Your task to perform on an android device: uninstall "LiveIn - Share Your Moment" Image 0: 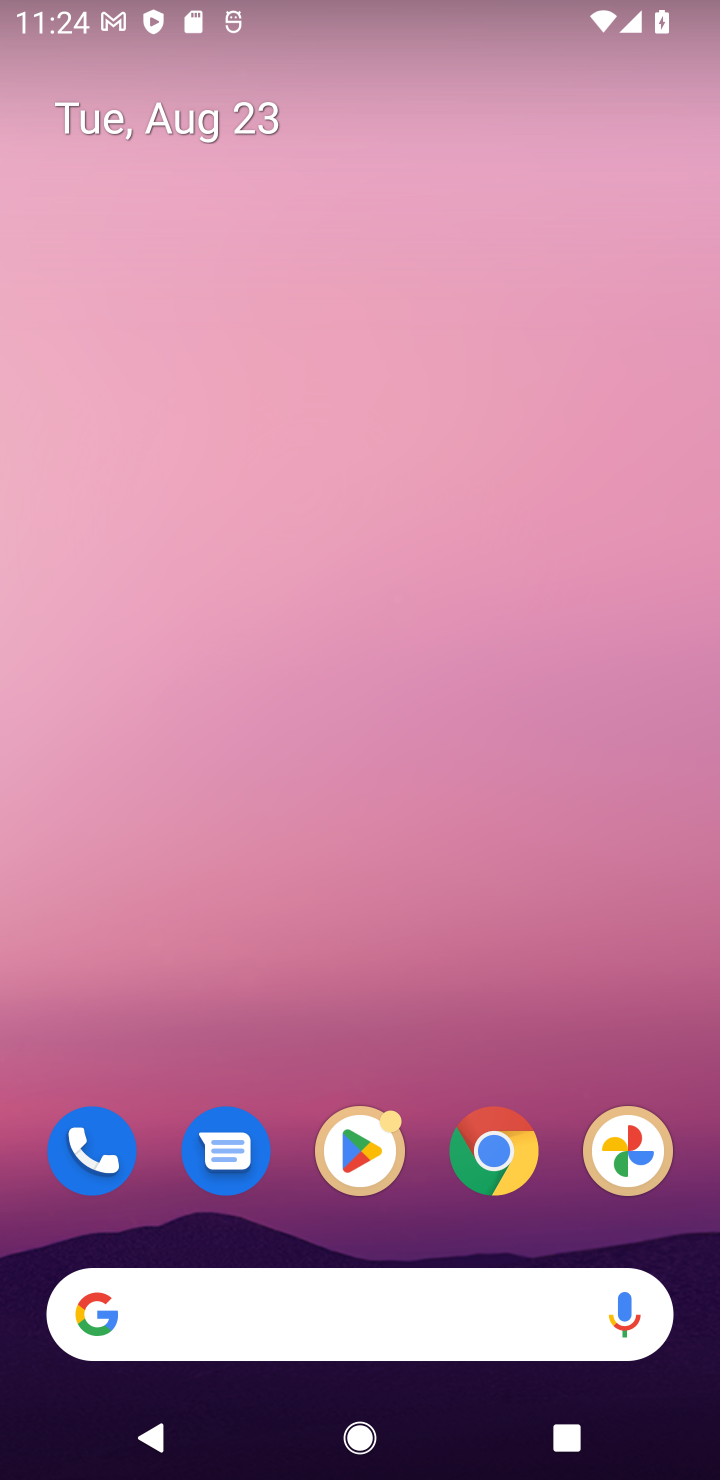
Step 0: drag from (237, 1349) to (335, 56)
Your task to perform on an android device: uninstall "LiveIn - Share Your Moment" Image 1: 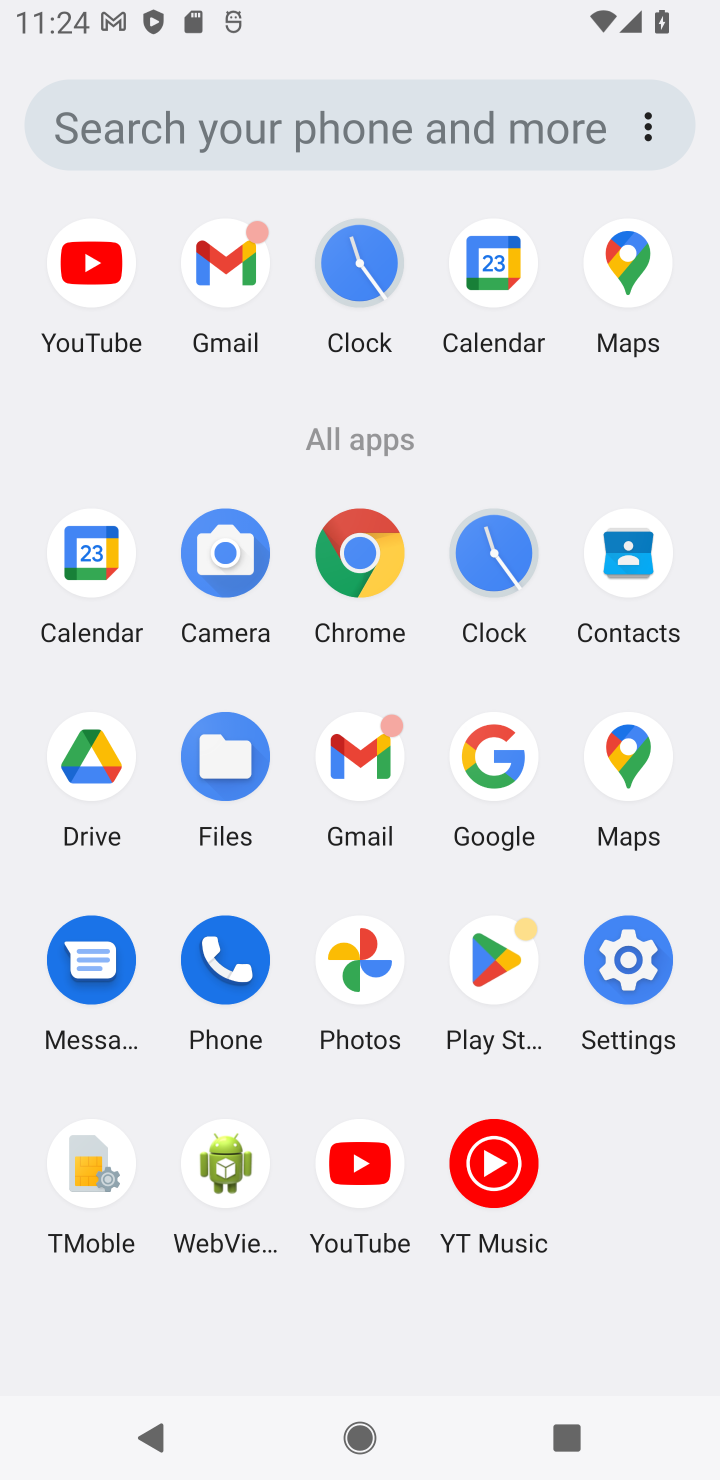
Step 1: click (497, 969)
Your task to perform on an android device: uninstall "LiveIn - Share Your Moment" Image 2: 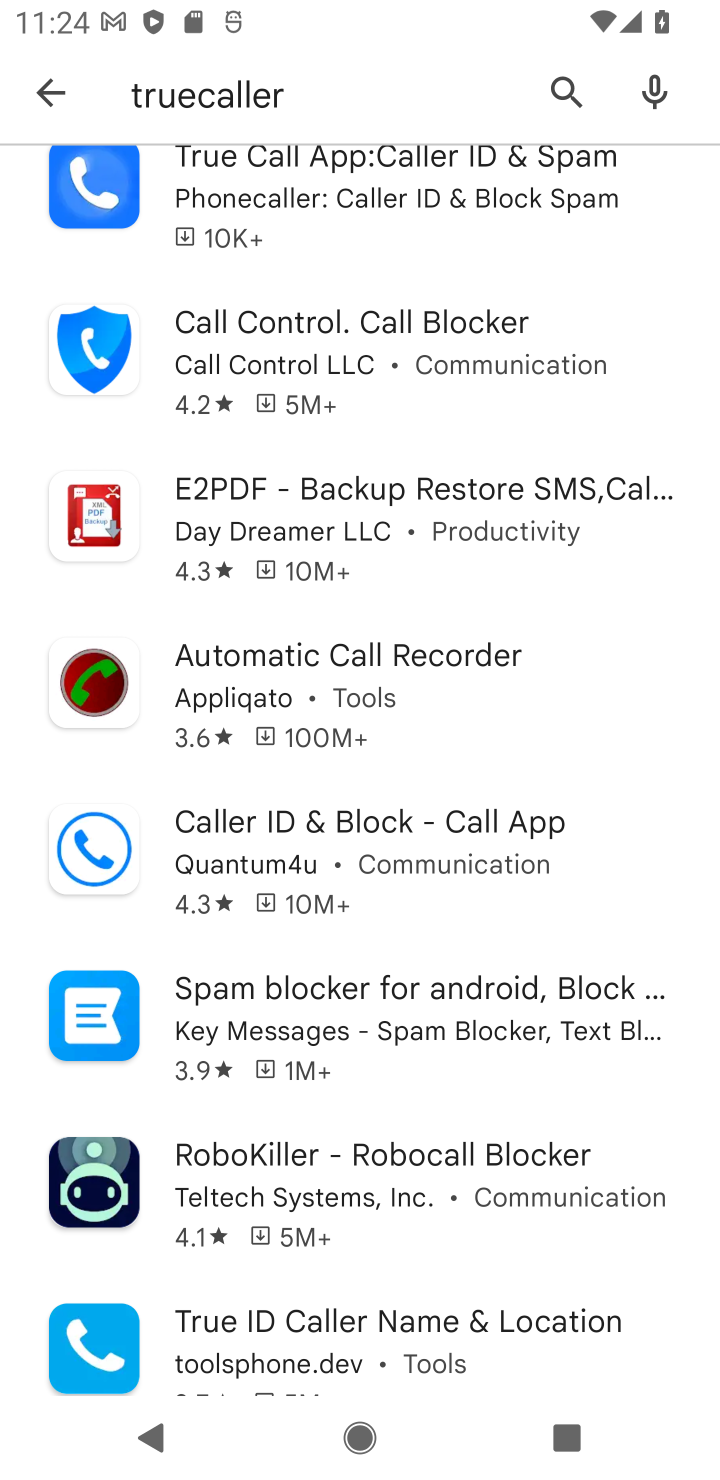
Step 2: press back button
Your task to perform on an android device: uninstall "LiveIn - Share Your Moment" Image 3: 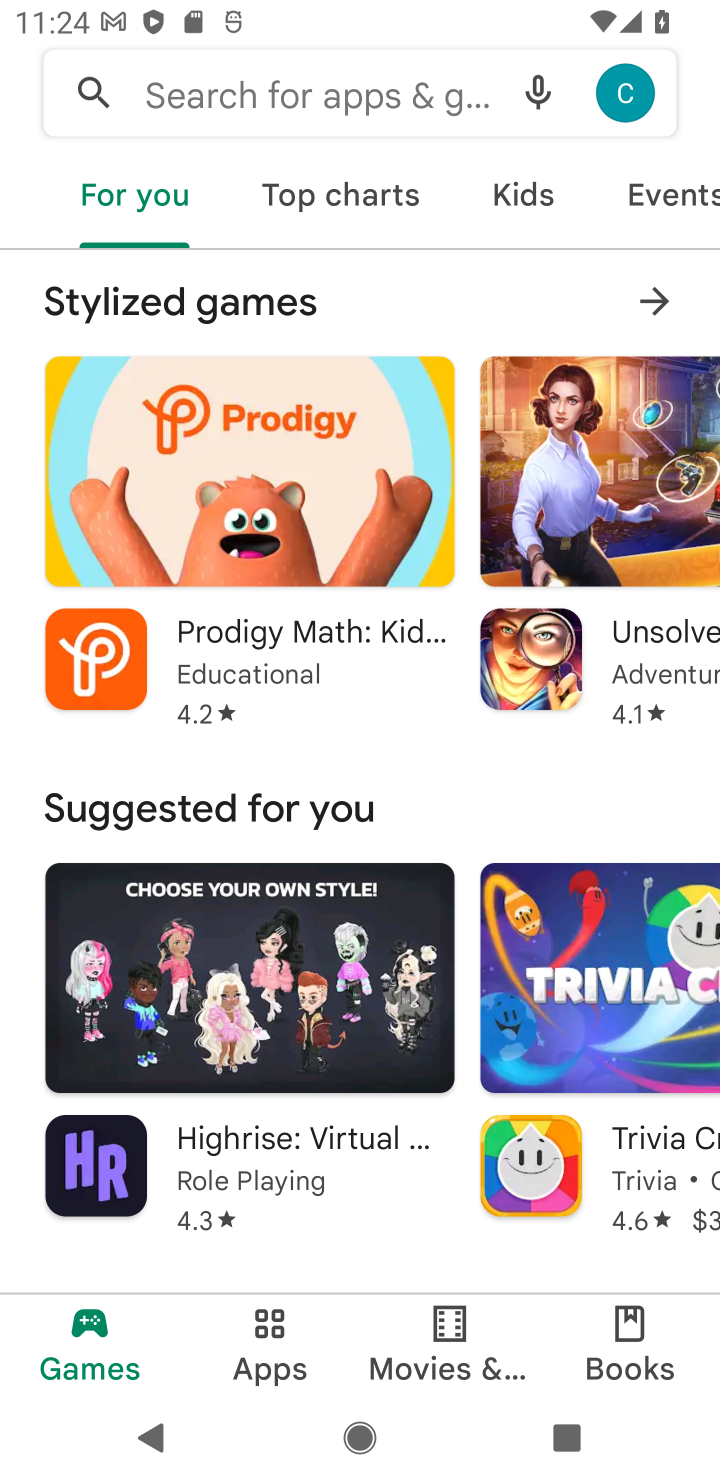
Step 3: click (307, 84)
Your task to perform on an android device: uninstall "LiveIn - Share Your Moment" Image 4: 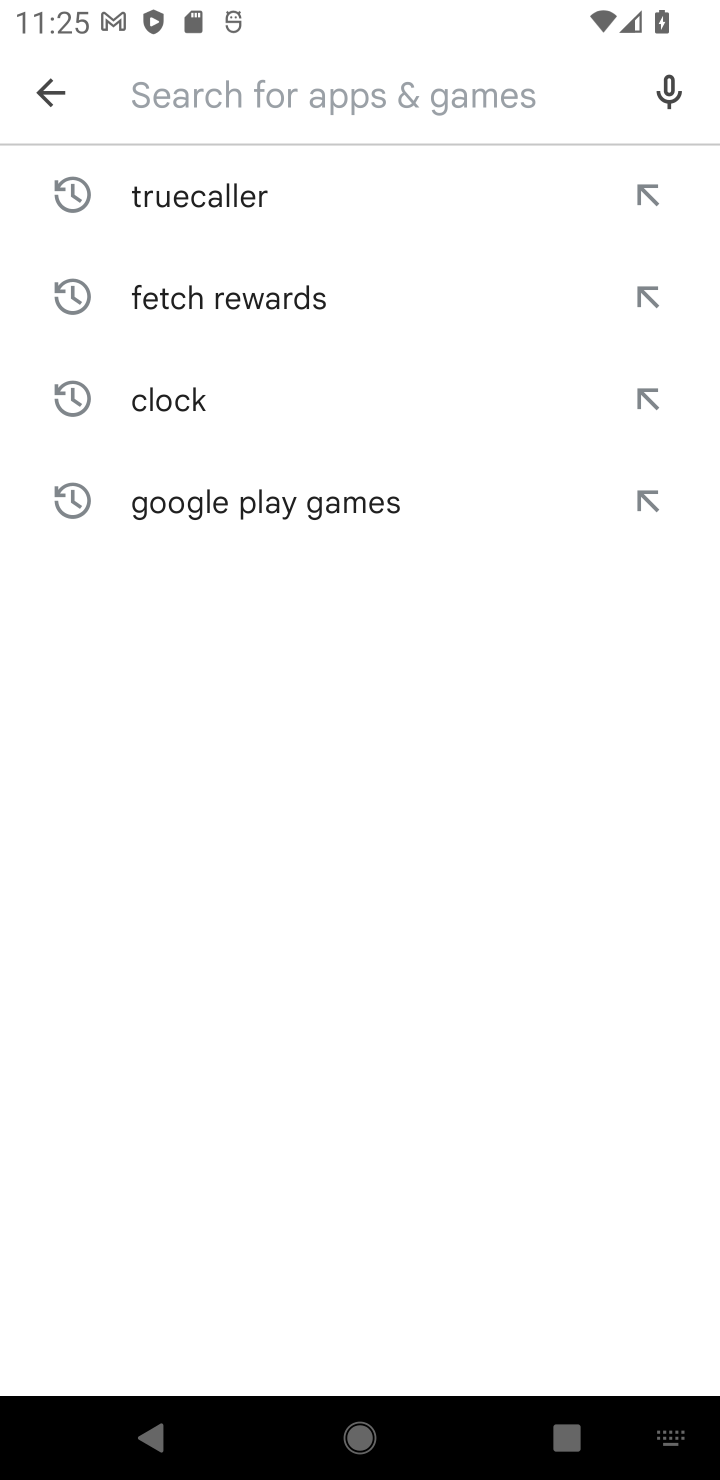
Step 4: type "LiveIn - Share Your Moment"
Your task to perform on an android device: uninstall "LiveIn - Share Your Moment" Image 5: 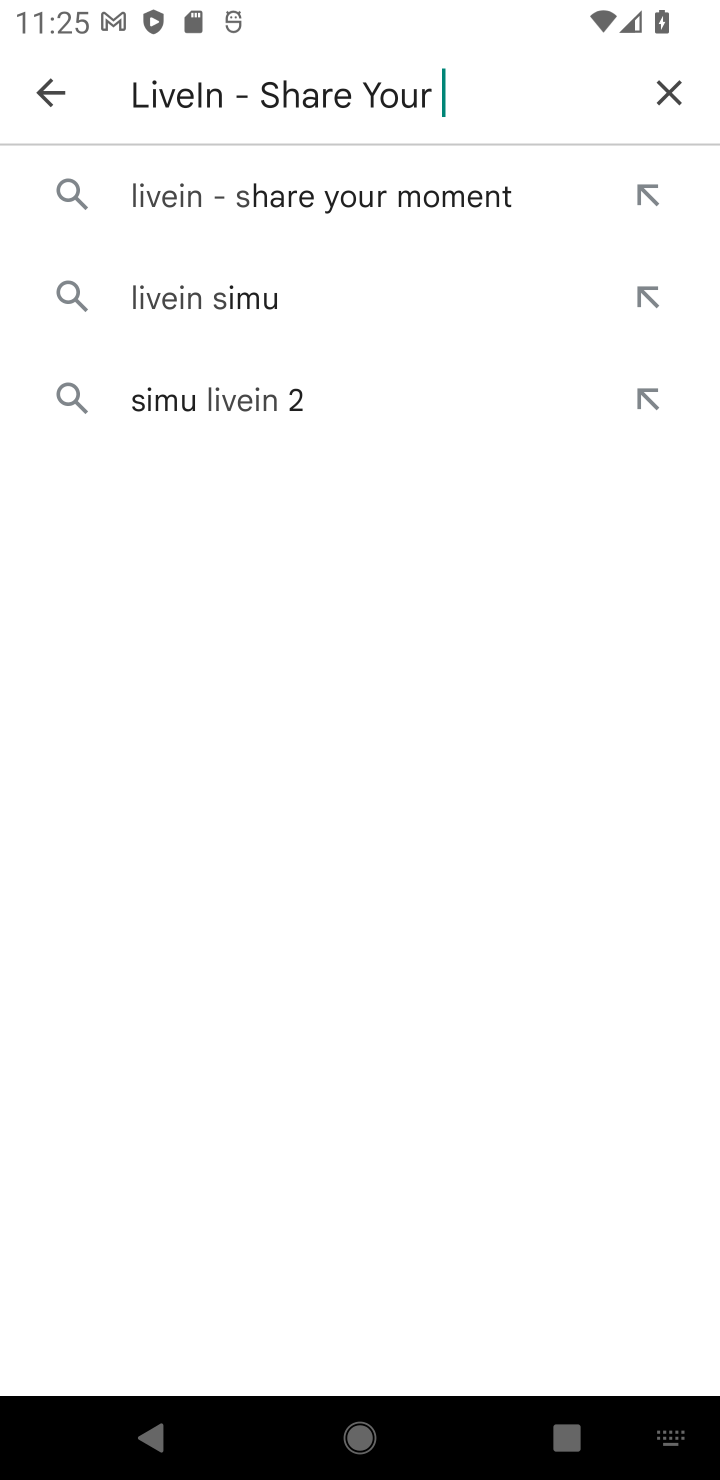
Step 5: type ""
Your task to perform on an android device: uninstall "LiveIn - Share Your Moment" Image 6: 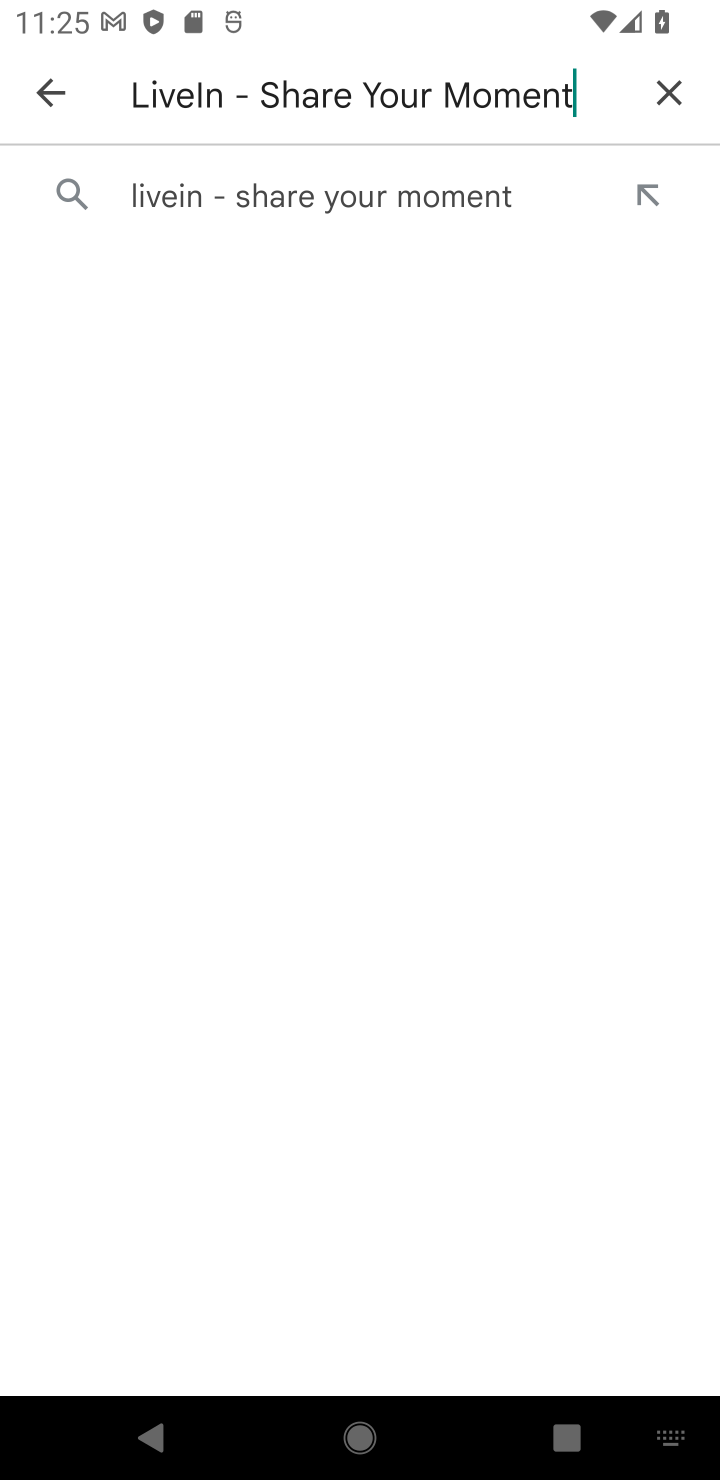
Step 6: click (493, 220)
Your task to perform on an android device: uninstall "LiveIn - Share Your Moment" Image 7: 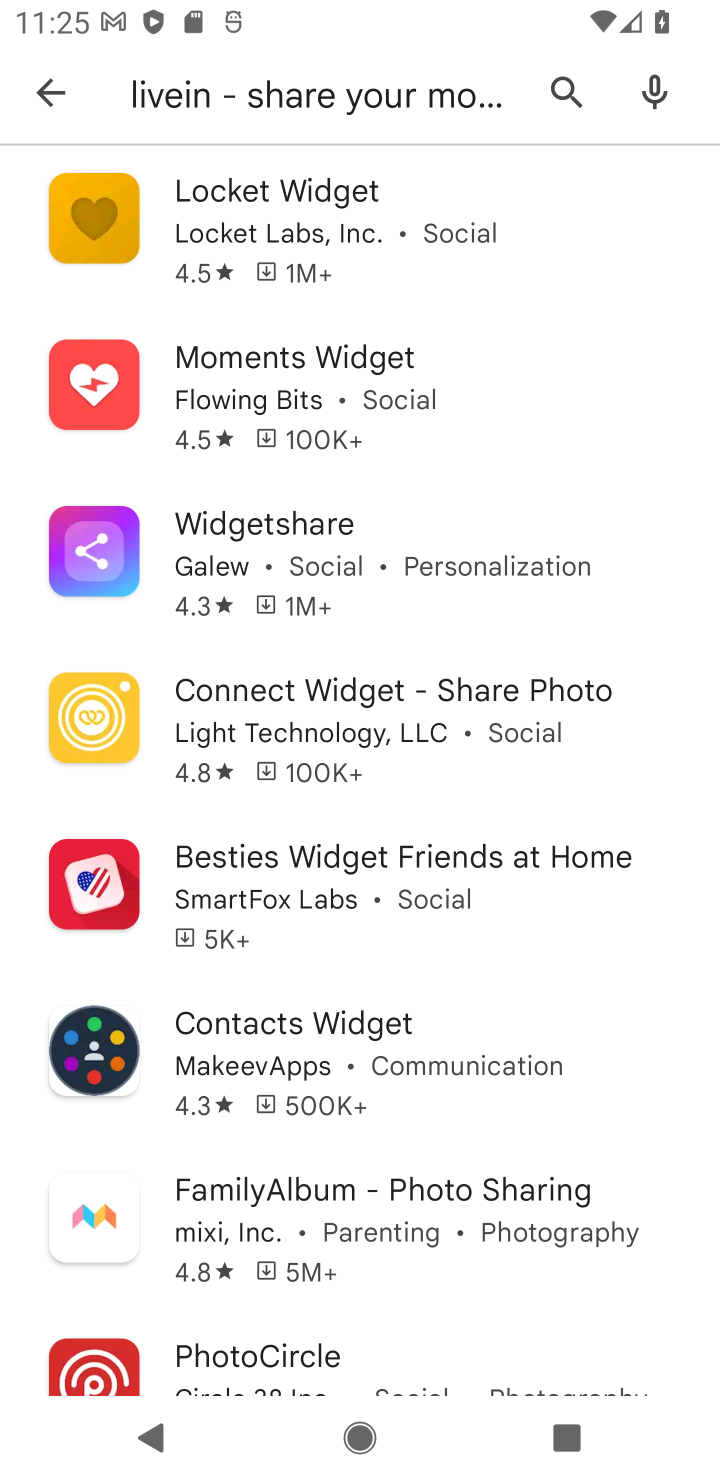
Step 7: drag from (296, 984) to (432, 749)
Your task to perform on an android device: uninstall "LiveIn - Share Your Moment" Image 8: 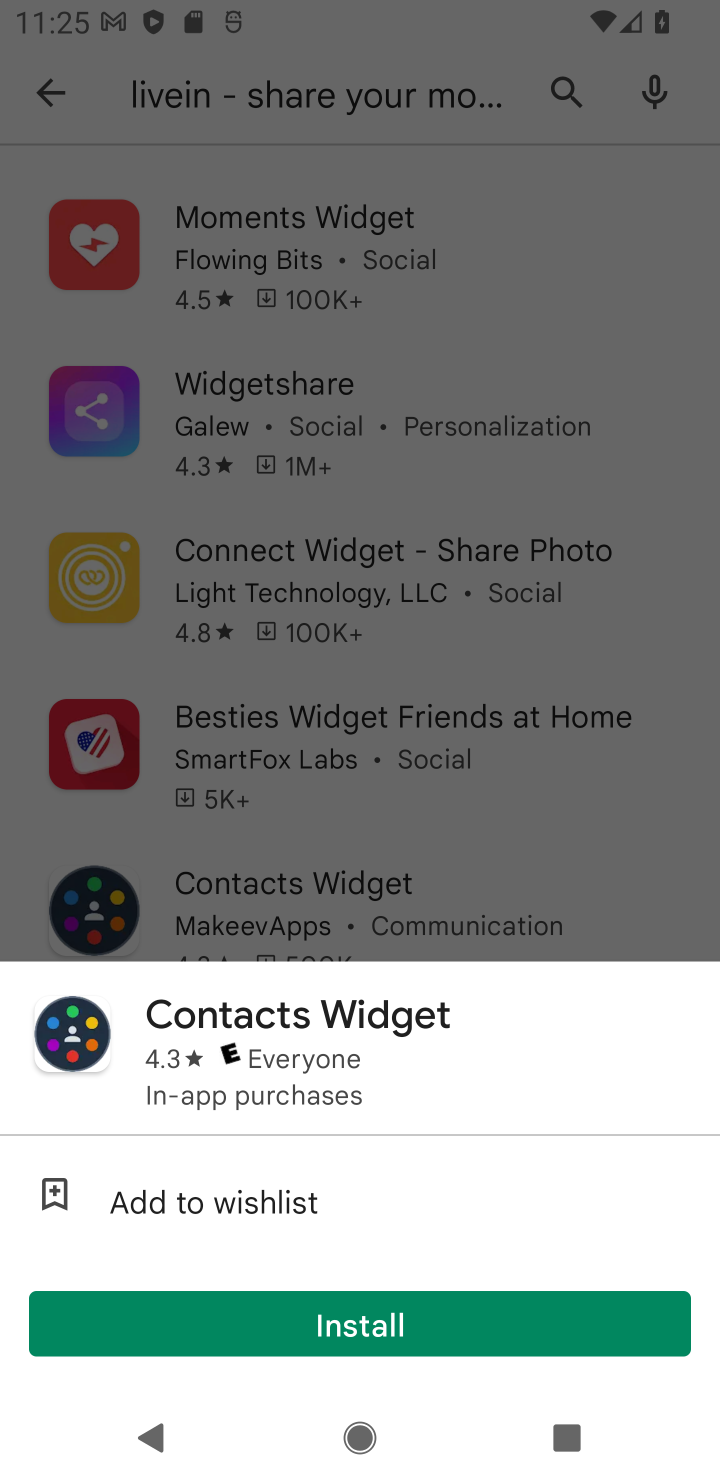
Step 8: click (570, 480)
Your task to perform on an android device: uninstall "LiveIn - Share Your Moment" Image 9: 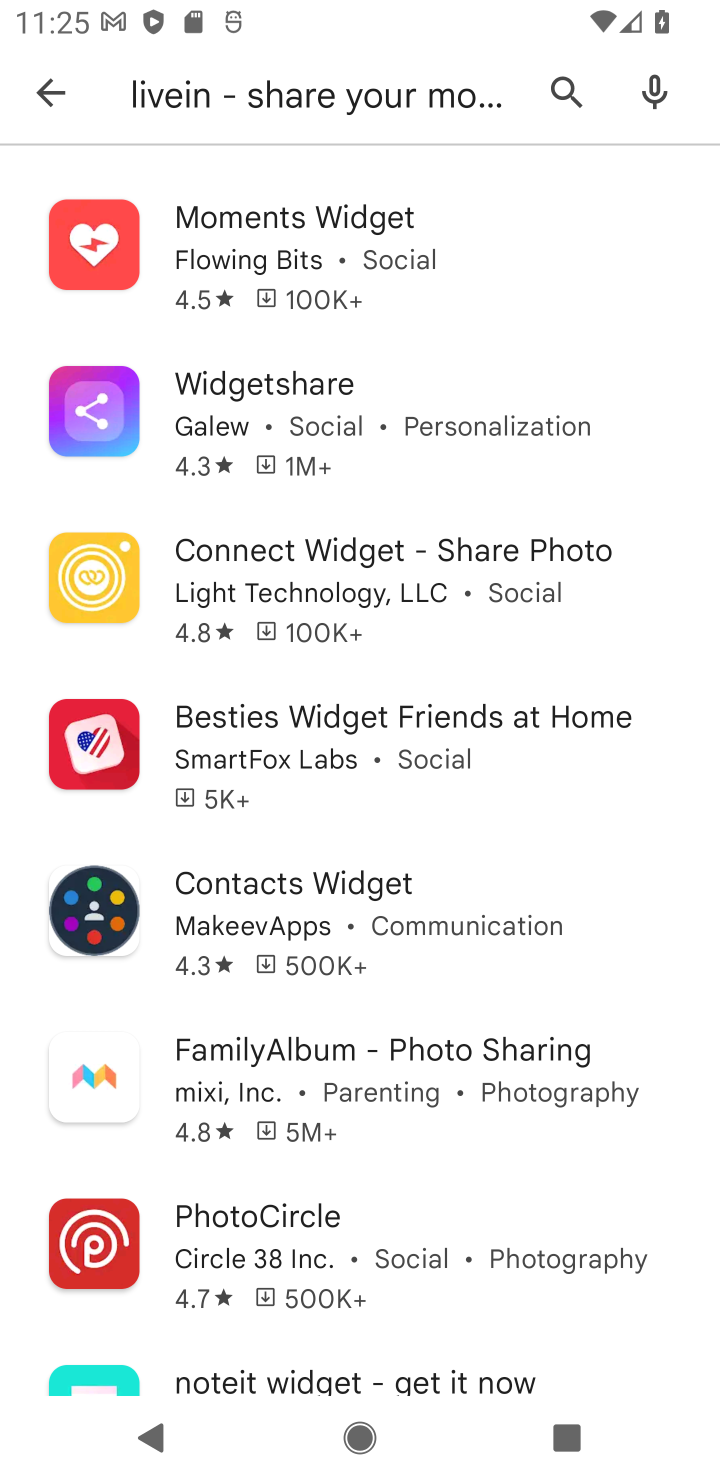
Step 9: task complete